Your task to perform on an android device: Open Yahoo.com Image 0: 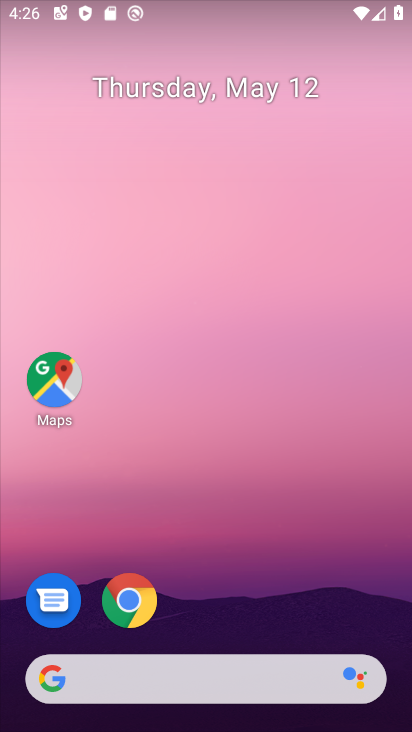
Step 0: drag from (176, 624) to (203, 464)
Your task to perform on an android device: Open Yahoo.com Image 1: 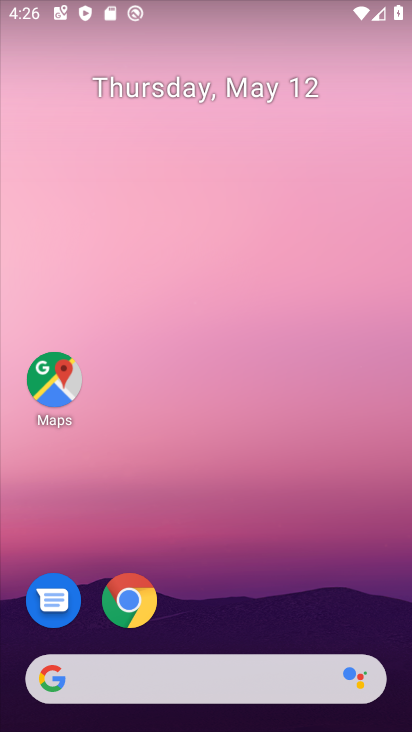
Step 1: drag from (212, 466) to (206, 140)
Your task to perform on an android device: Open Yahoo.com Image 2: 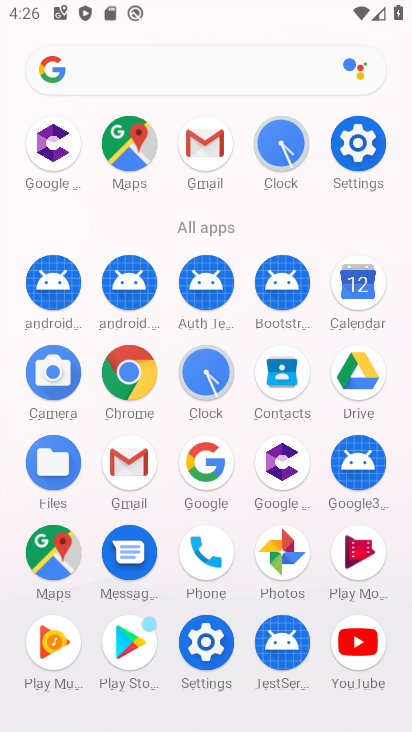
Step 2: click (127, 382)
Your task to perform on an android device: Open Yahoo.com Image 3: 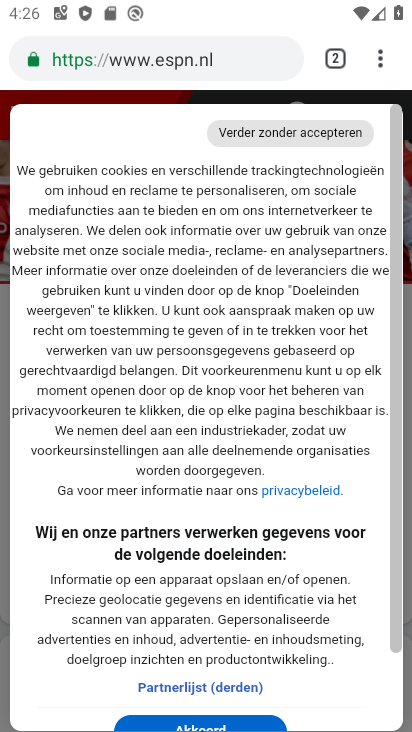
Step 3: click (164, 54)
Your task to perform on an android device: Open Yahoo.com Image 4: 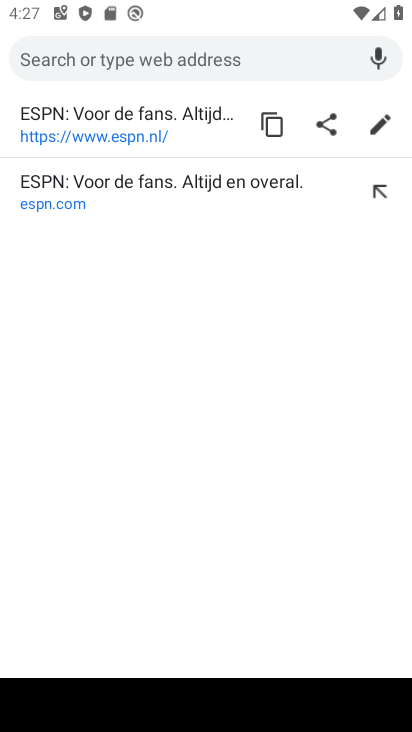
Step 4: type "yahoo"
Your task to perform on an android device: Open Yahoo.com Image 5: 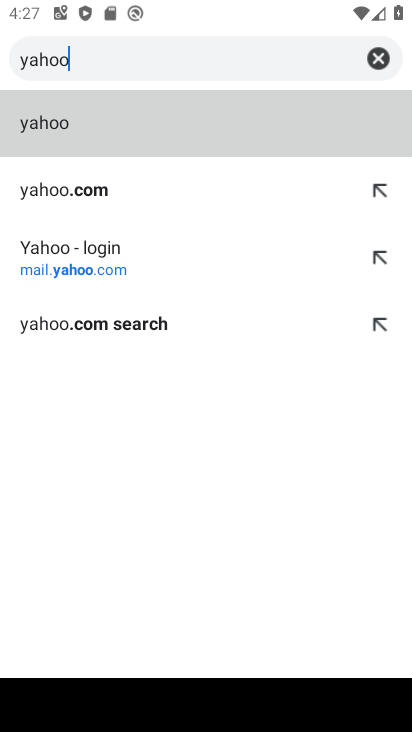
Step 5: click (191, 193)
Your task to perform on an android device: Open Yahoo.com Image 6: 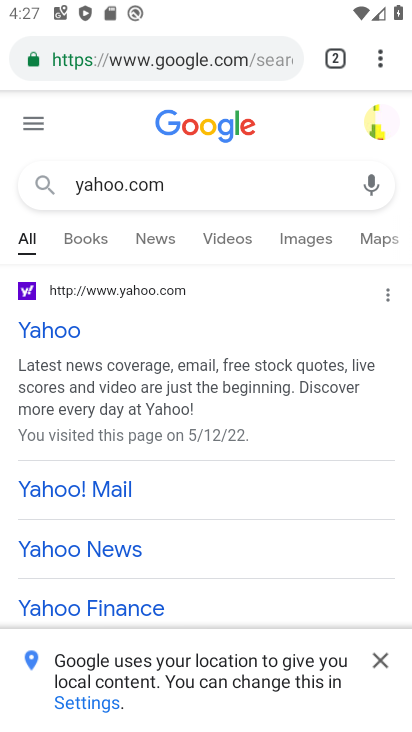
Step 6: click (20, 316)
Your task to perform on an android device: Open Yahoo.com Image 7: 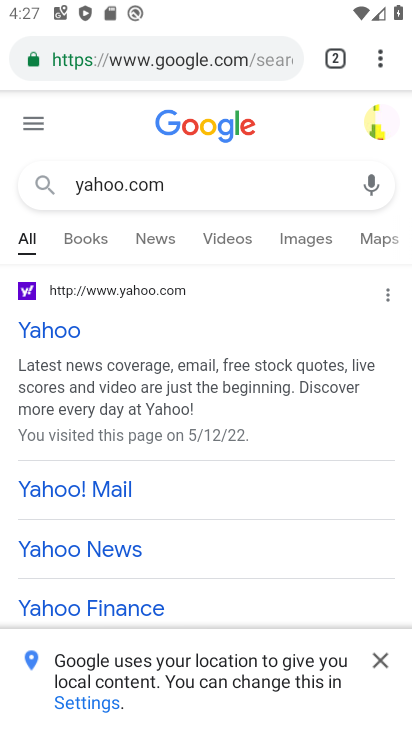
Step 7: click (33, 325)
Your task to perform on an android device: Open Yahoo.com Image 8: 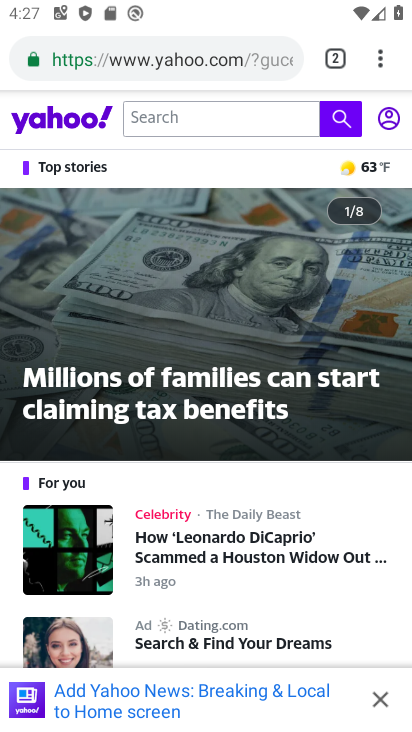
Step 8: click (382, 53)
Your task to perform on an android device: Open Yahoo.com Image 9: 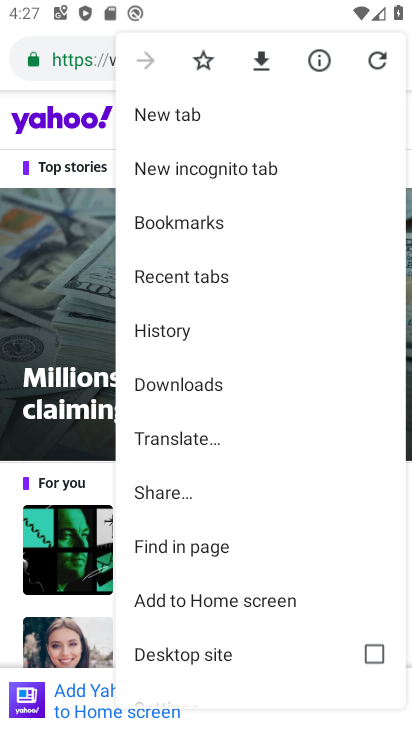
Step 9: task complete